Your task to perform on an android device: Open internet settings Image 0: 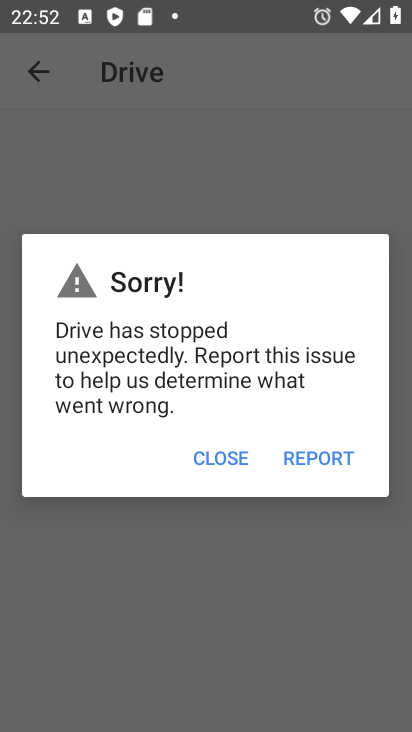
Step 0: press home button
Your task to perform on an android device: Open internet settings Image 1: 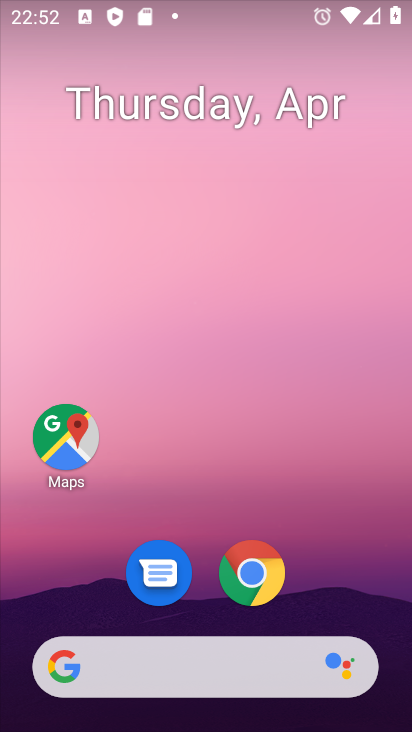
Step 1: drag from (323, 526) to (357, 107)
Your task to perform on an android device: Open internet settings Image 2: 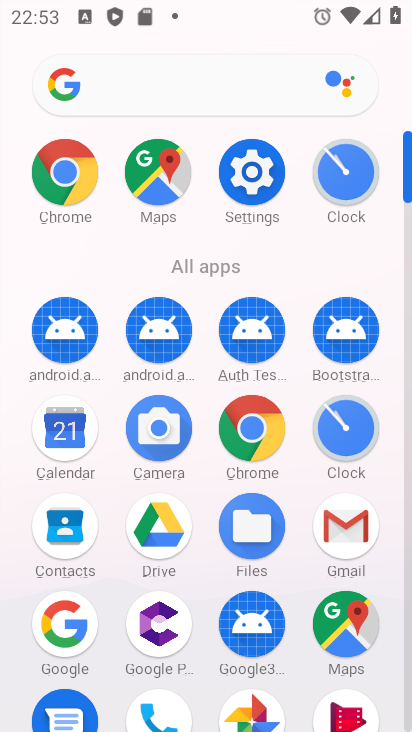
Step 2: click (255, 170)
Your task to perform on an android device: Open internet settings Image 3: 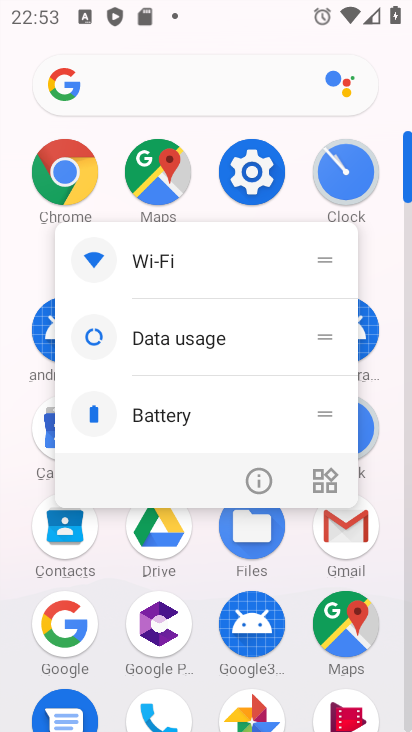
Step 3: click (254, 163)
Your task to perform on an android device: Open internet settings Image 4: 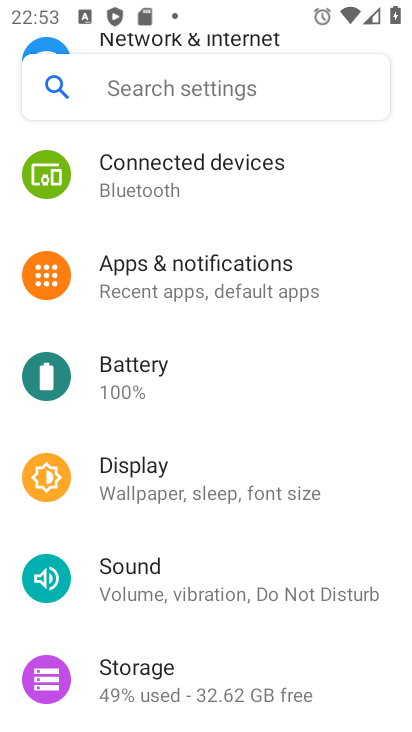
Step 4: drag from (238, 219) to (189, 664)
Your task to perform on an android device: Open internet settings Image 5: 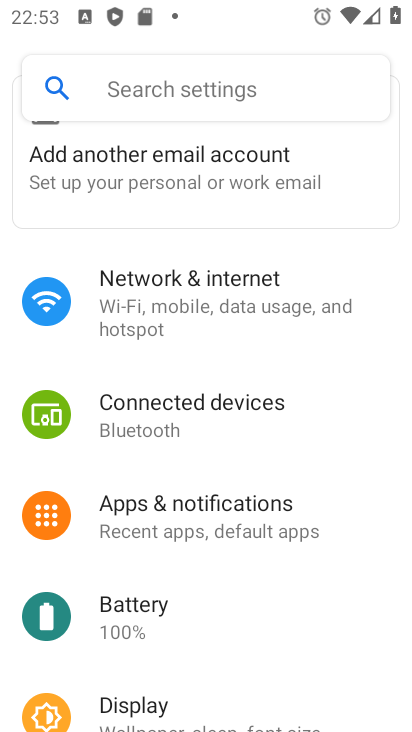
Step 5: click (206, 298)
Your task to perform on an android device: Open internet settings Image 6: 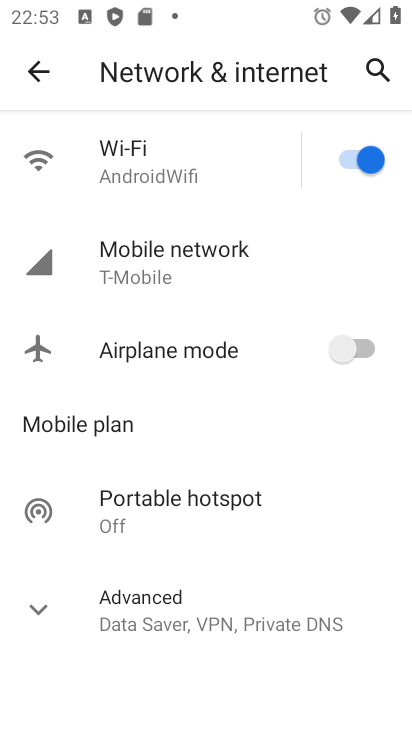
Step 6: task complete